Your task to perform on an android device: open app "Spotify" (install if not already installed) Image 0: 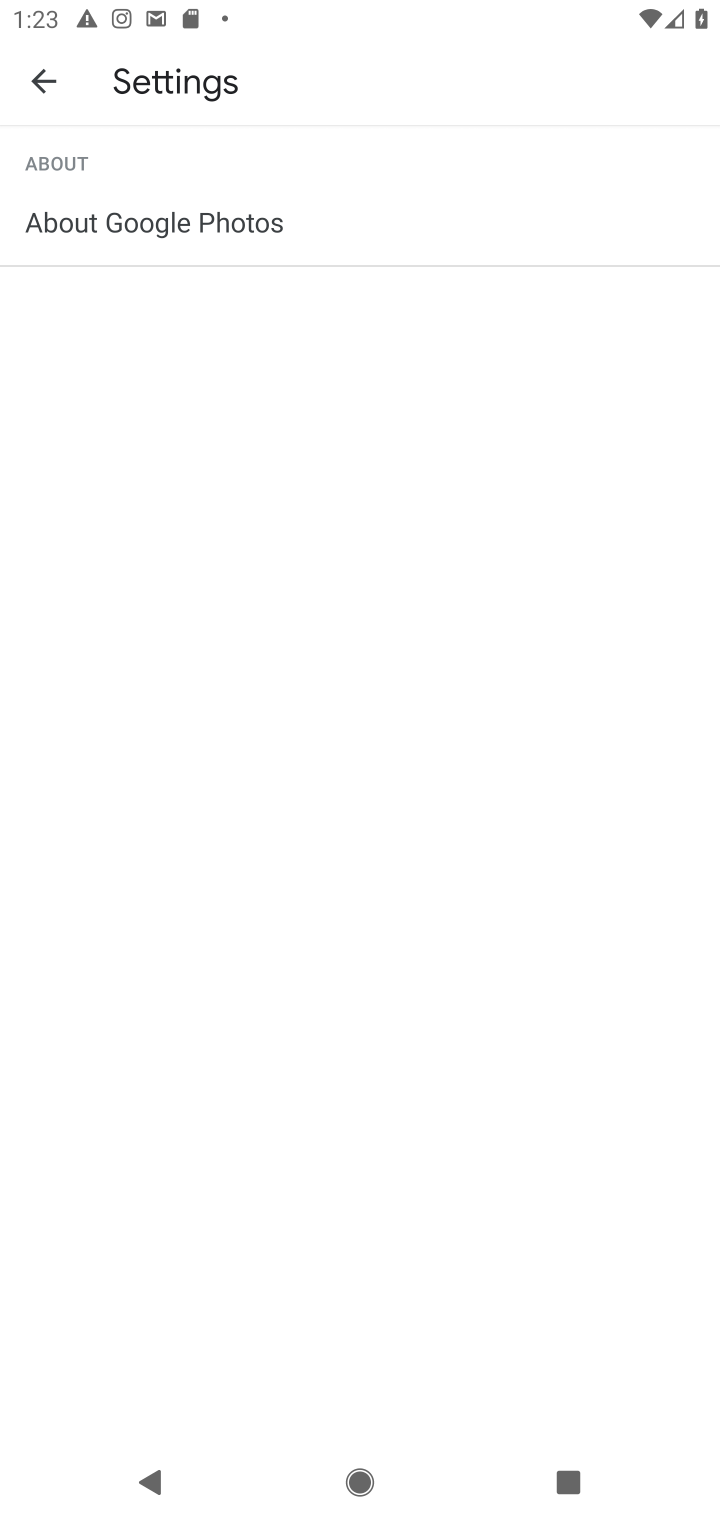
Step 0: press home button
Your task to perform on an android device: open app "Spotify" (install if not already installed) Image 1: 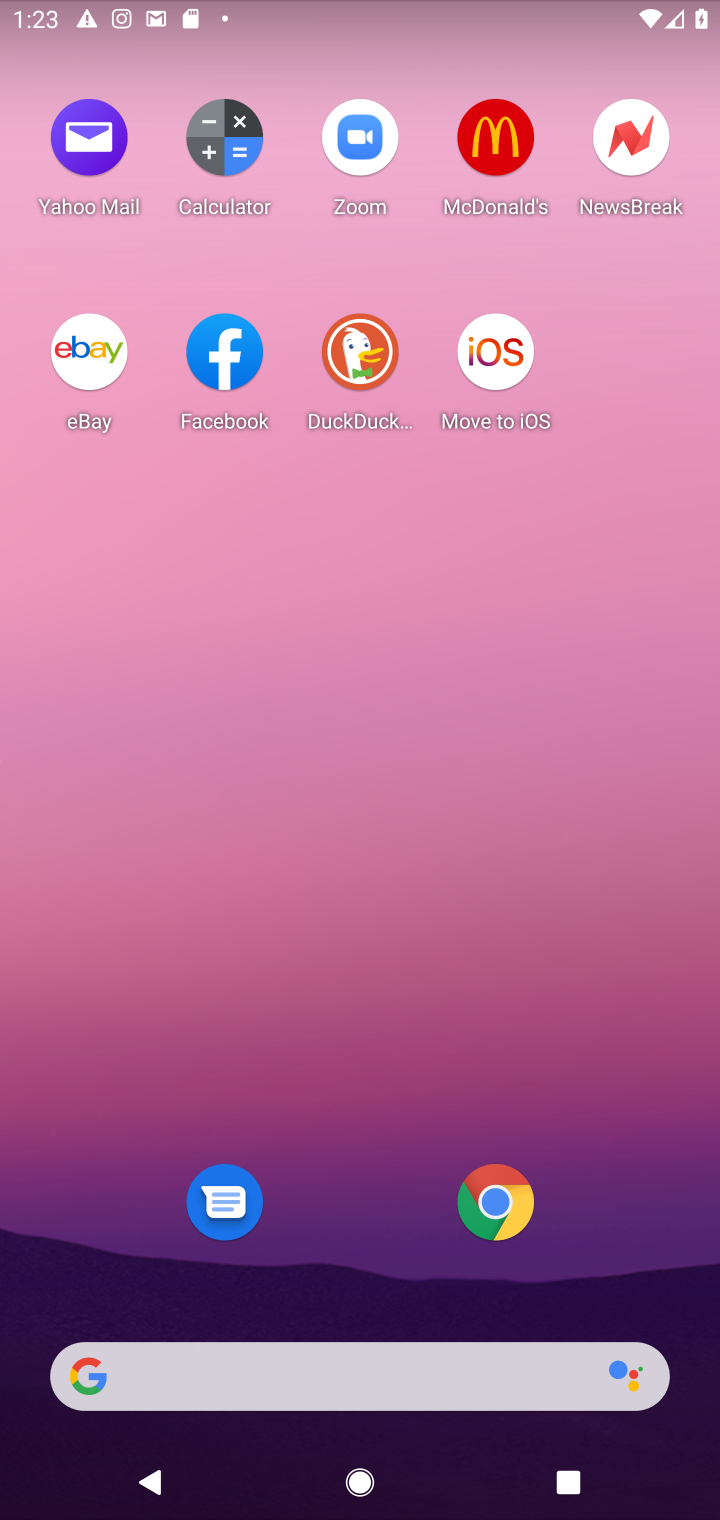
Step 1: drag from (308, 1145) to (299, 398)
Your task to perform on an android device: open app "Spotify" (install if not already installed) Image 2: 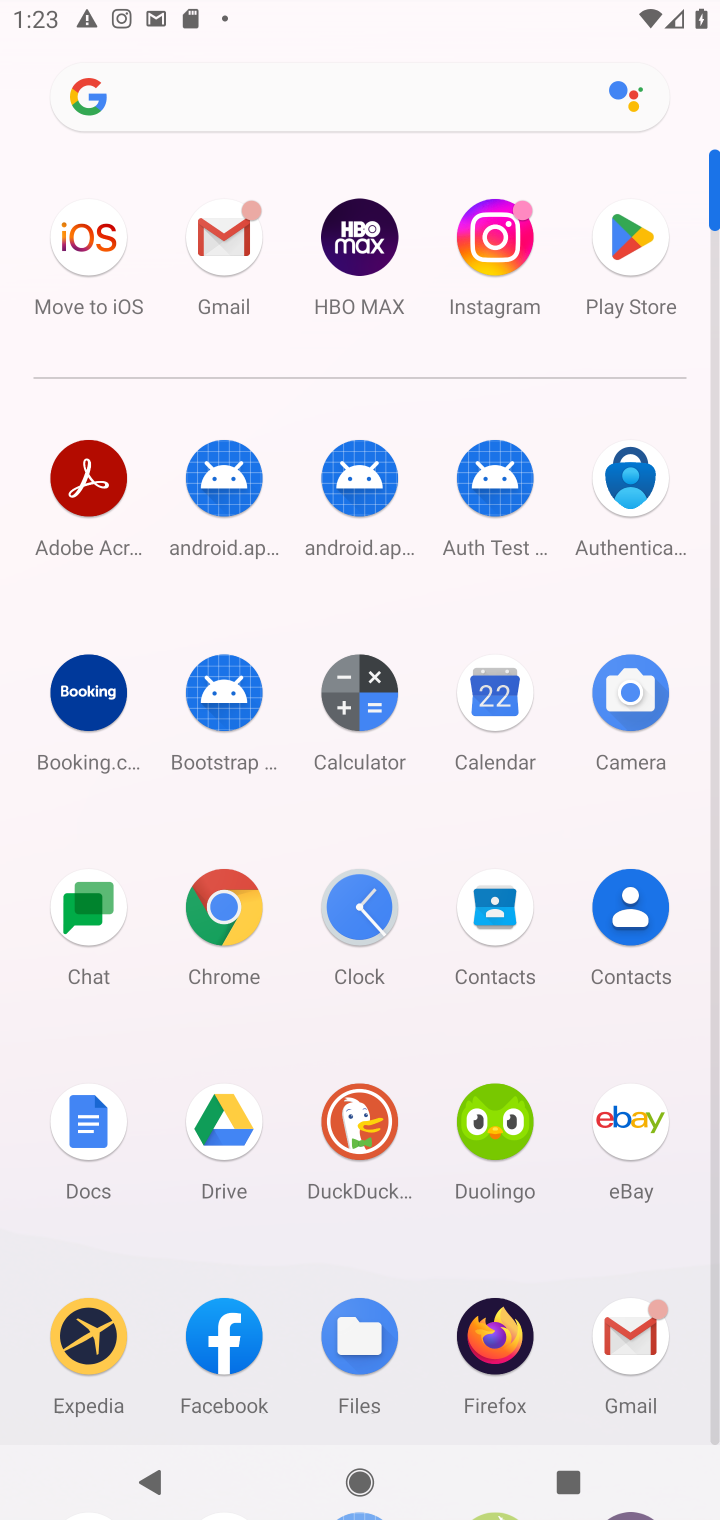
Step 2: click (624, 244)
Your task to perform on an android device: open app "Spotify" (install if not already installed) Image 3: 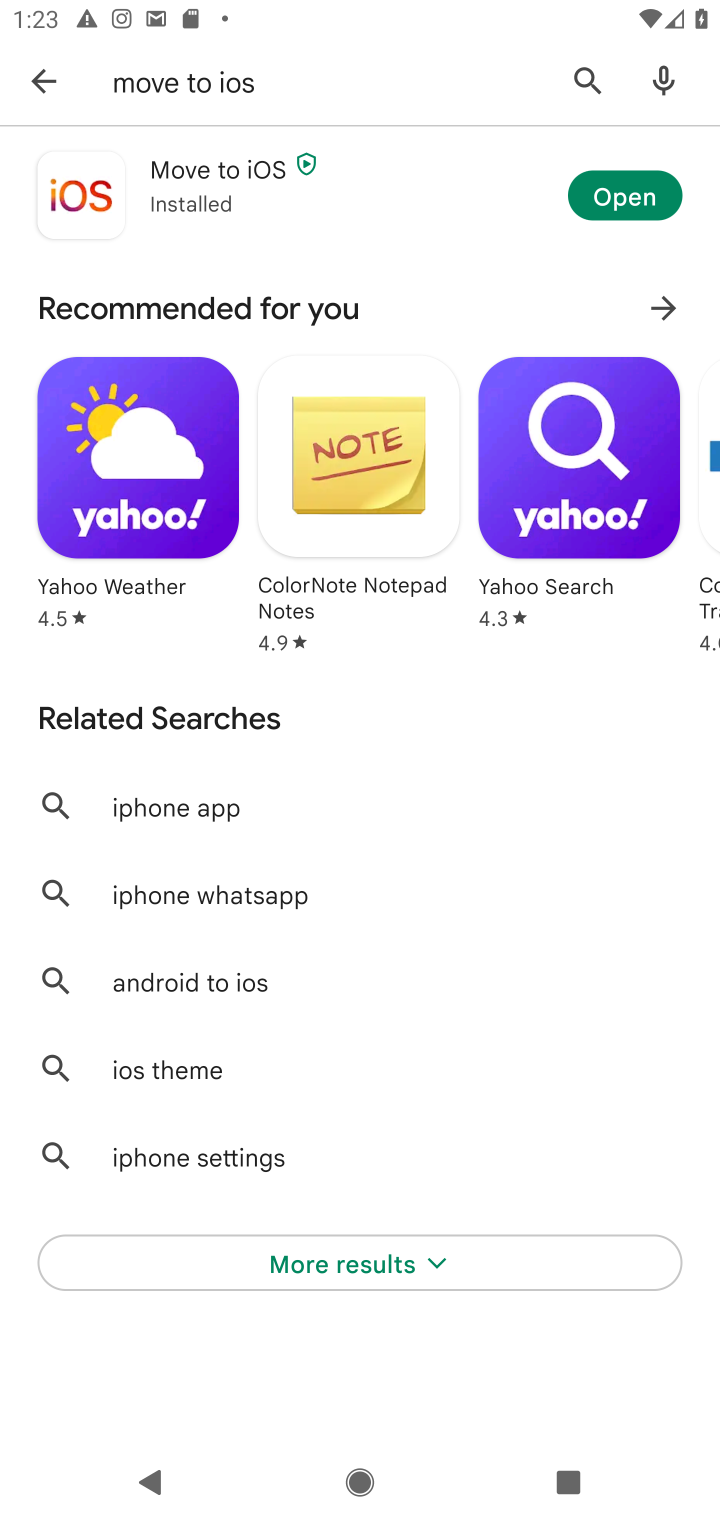
Step 3: click (590, 72)
Your task to perform on an android device: open app "Spotify" (install if not already installed) Image 4: 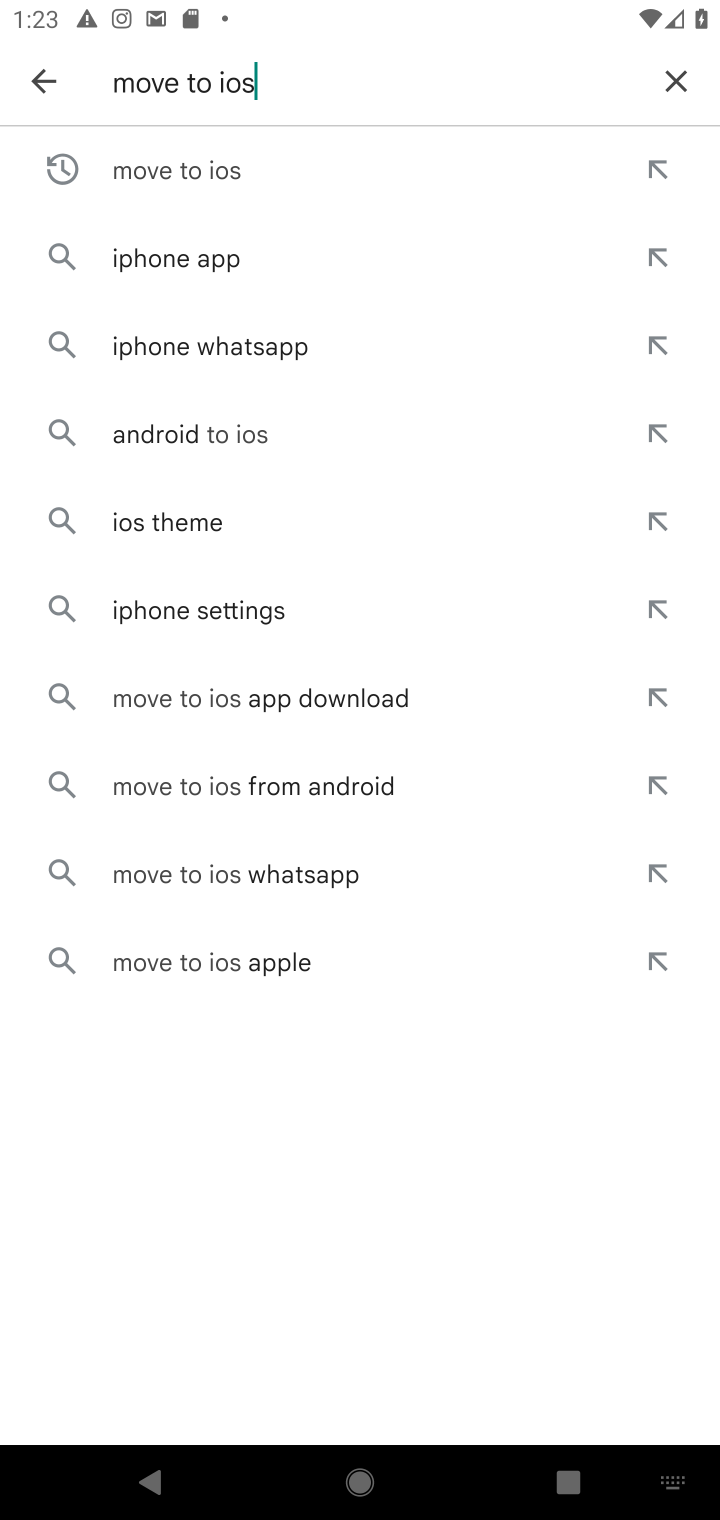
Step 4: click (670, 78)
Your task to perform on an android device: open app "Spotify" (install if not already installed) Image 5: 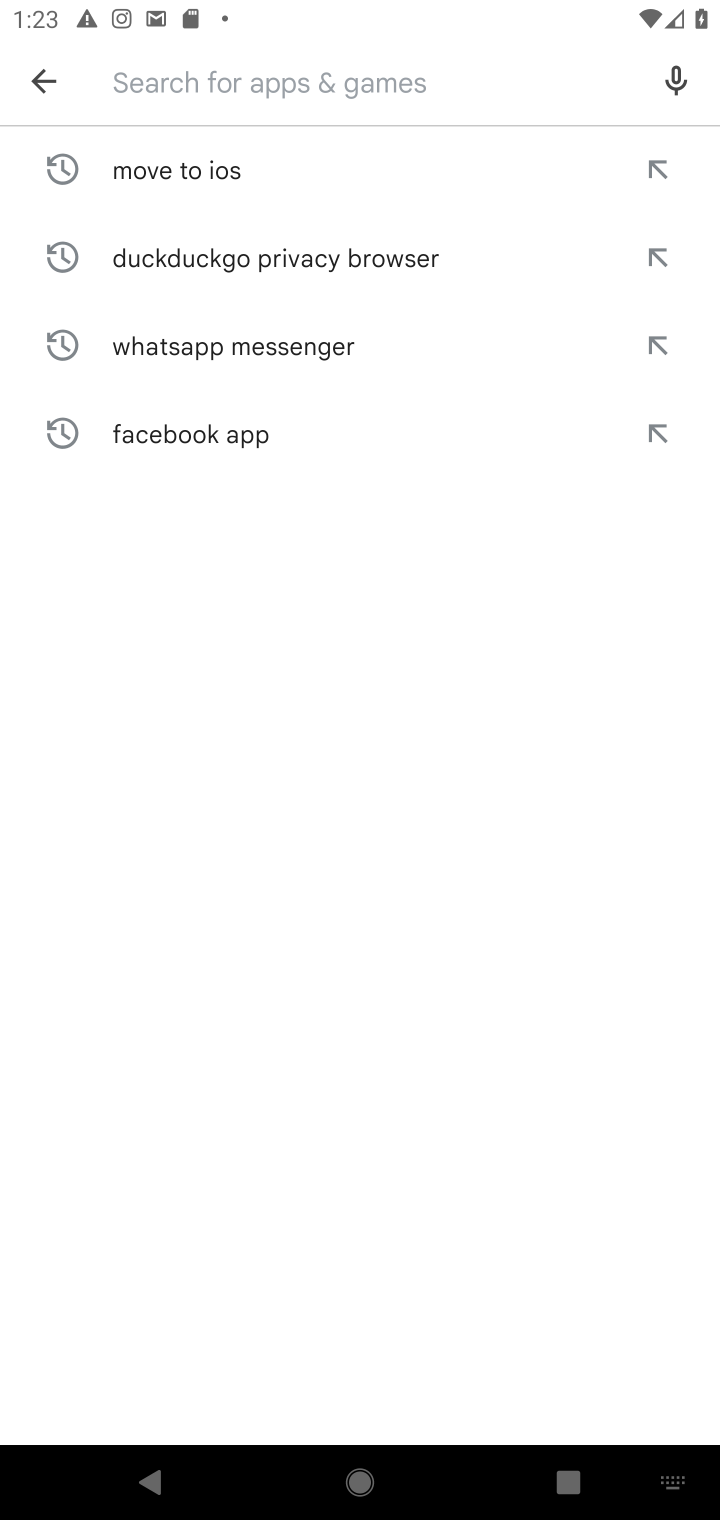
Step 5: type "Spotify"
Your task to perform on an android device: open app "Spotify" (install if not already installed) Image 6: 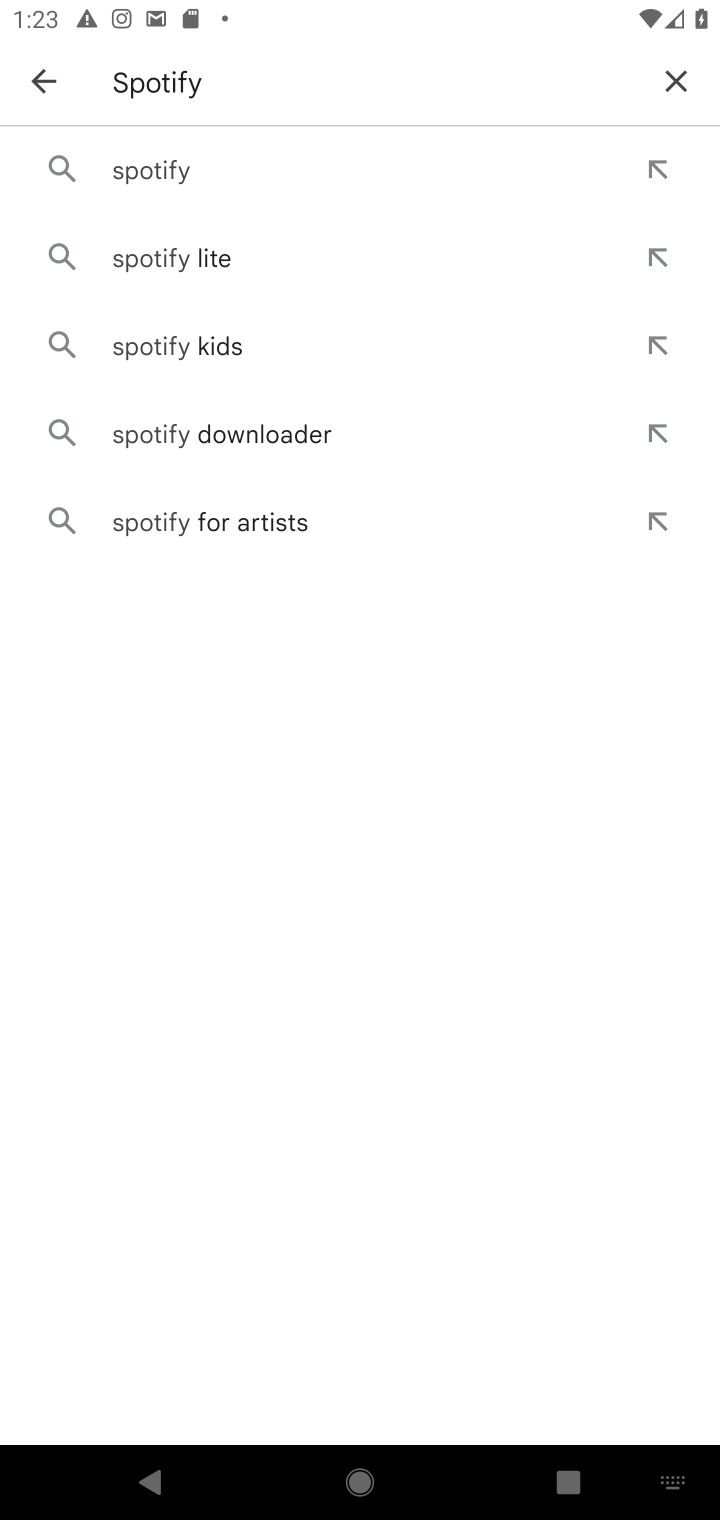
Step 6: click (155, 169)
Your task to perform on an android device: open app "Spotify" (install if not already installed) Image 7: 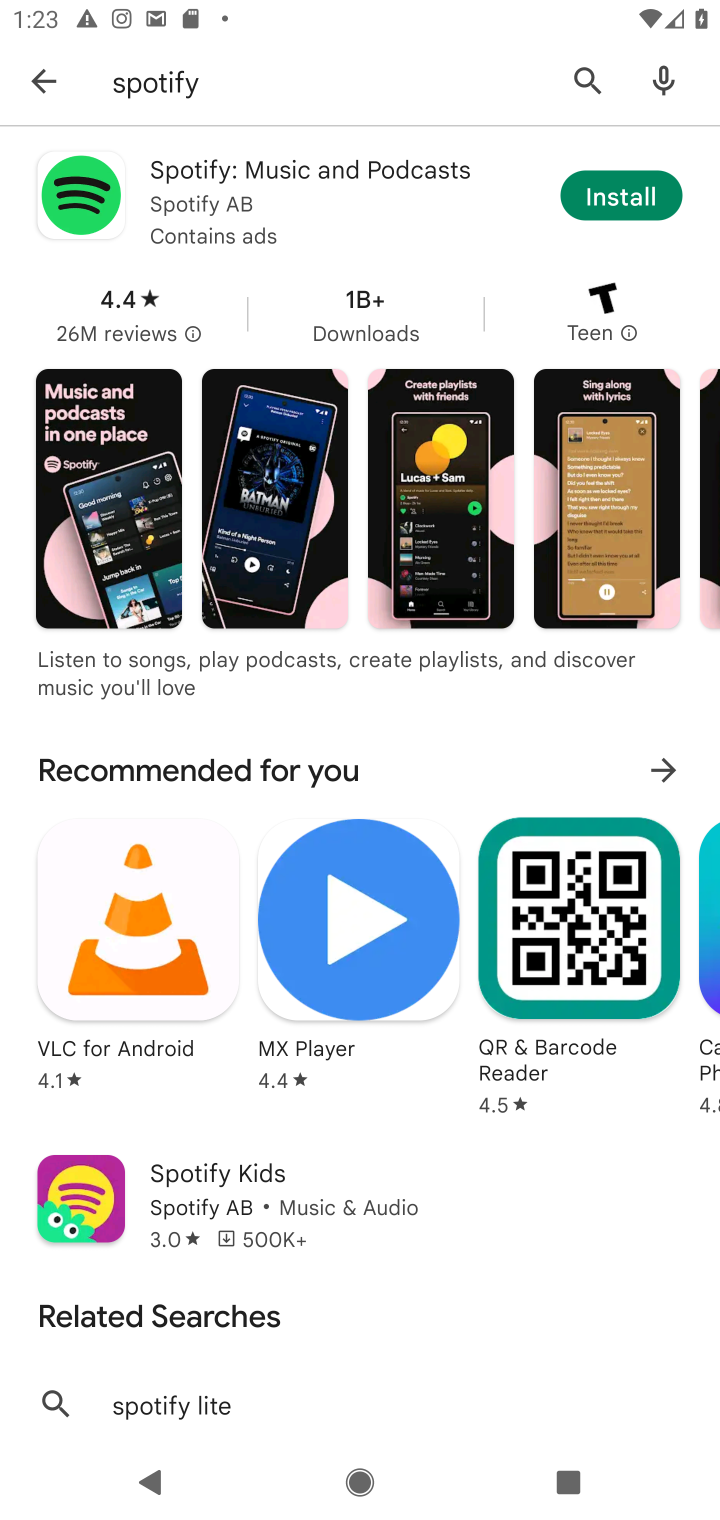
Step 7: click (637, 201)
Your task to perform on an android device: open app "Spotify" (install if not already installed) Image 8: 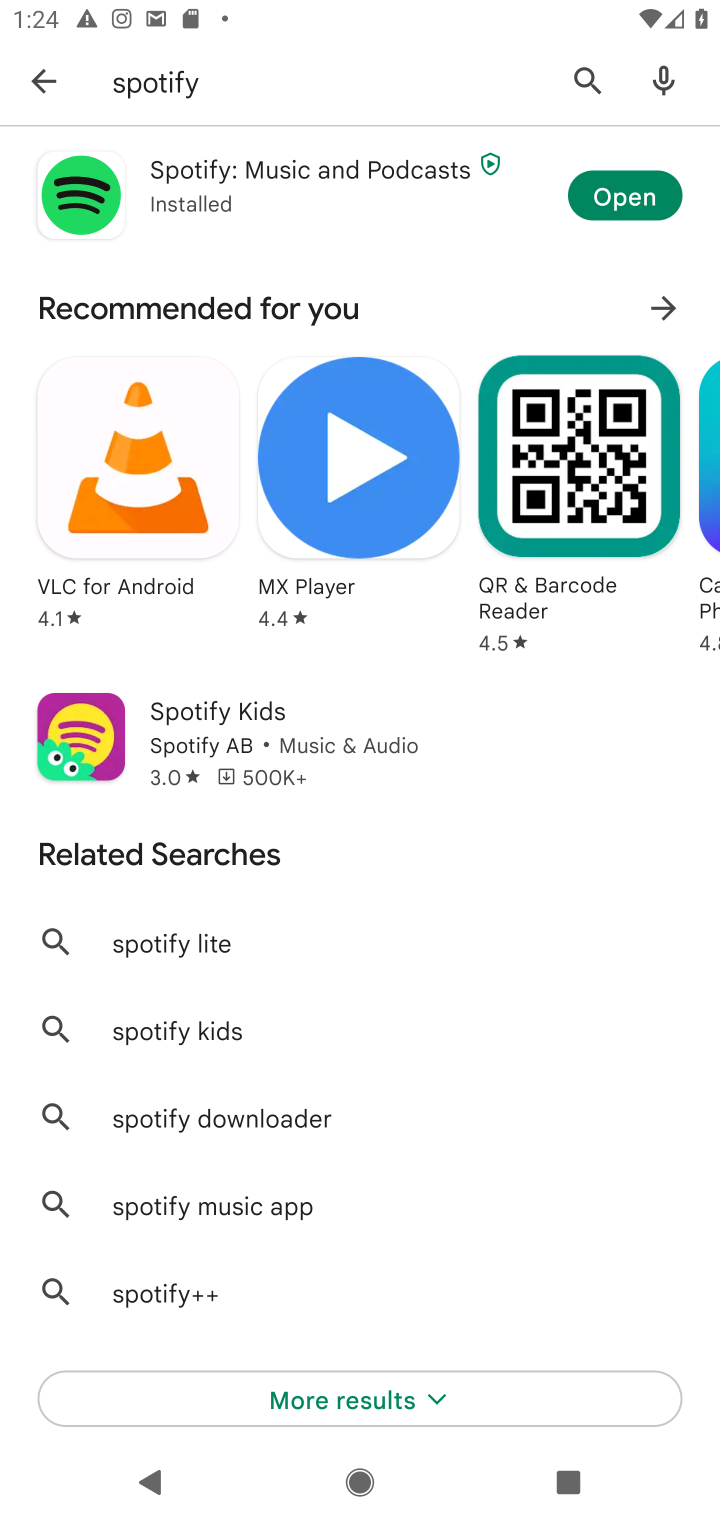
Step 8: click (625, 198)
Your task to perform on an android device: open app "Spotify" (install if not already installed) Image 9: 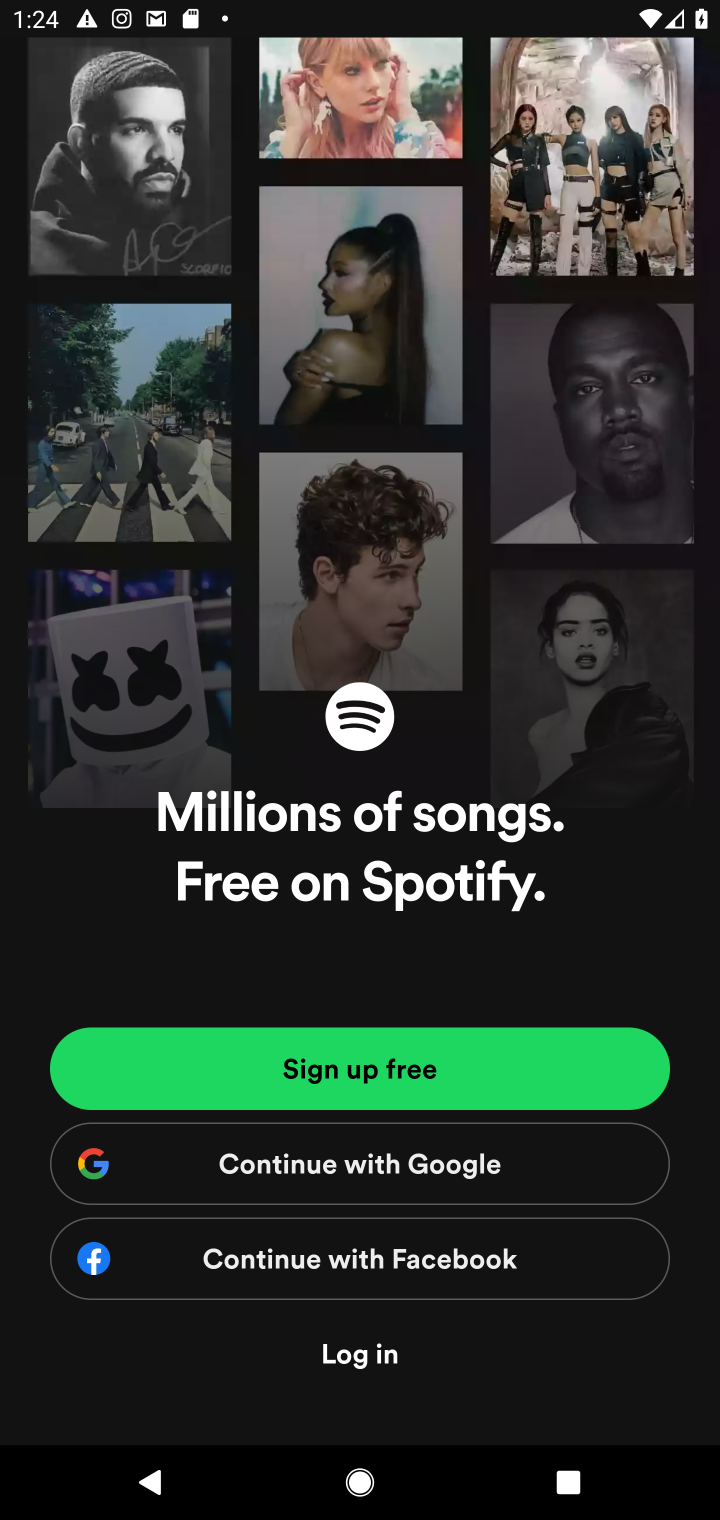
Step 9: task complete